Your task to perform on an android device: search for starred emails in the gmail app Image 0: 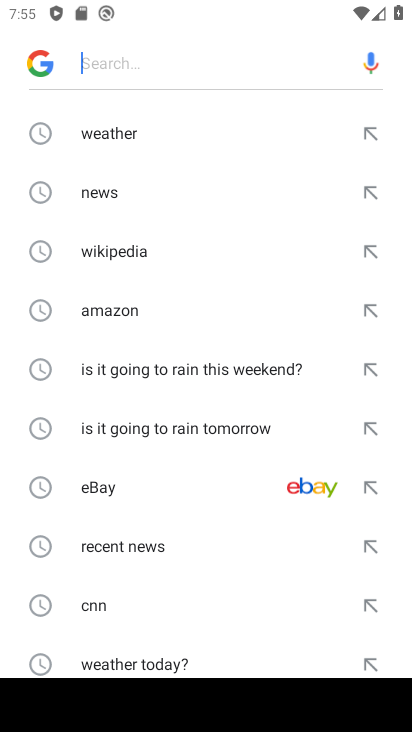
Step 0: press back button
Your task to perform on an android device: search for starred emails in the gmail app Image 1: 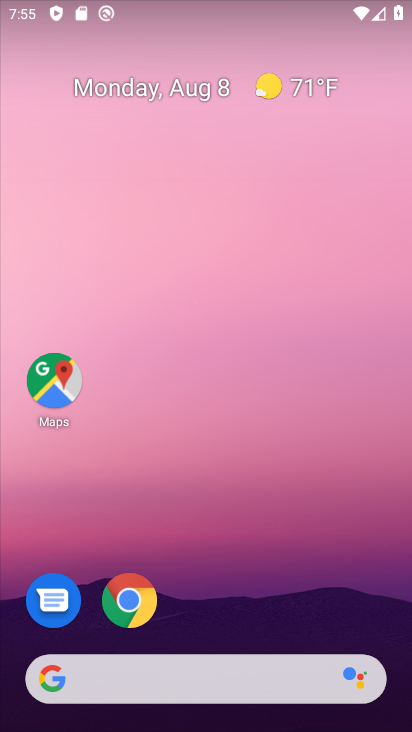
Step 1: drag from (212, 670) to (202, 24)
Your task to perform on an android device: search for starred emails in the gmail app Image 2: 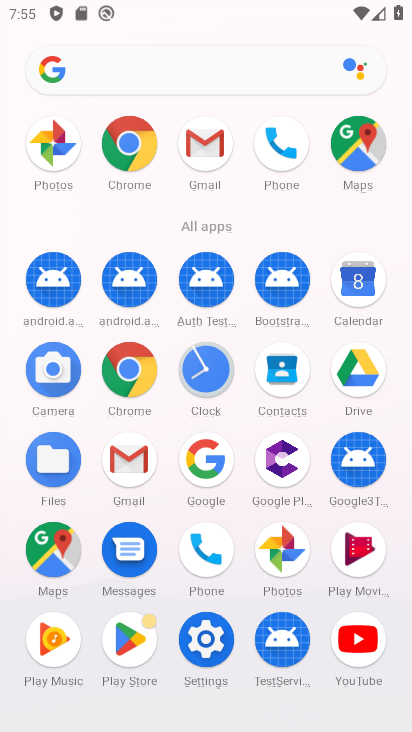
Step 2: click (143, 467)
Your task to perform on an android device: search for starred emails in the gmail app Image 3: 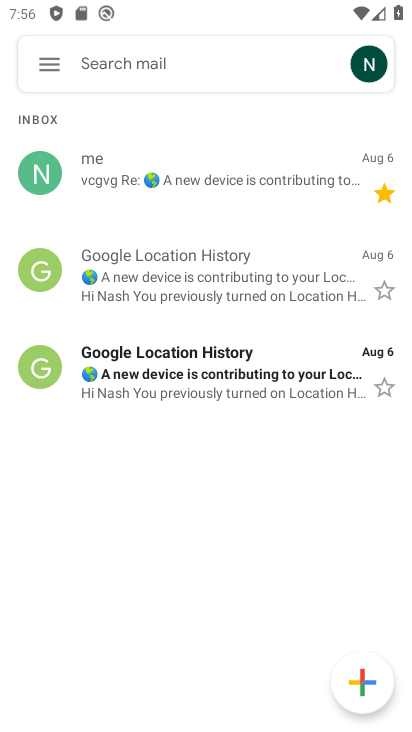
Step 3: click (54, 69)
Your task to perform on an android device: search for starred emails in the gmail app Image 4: 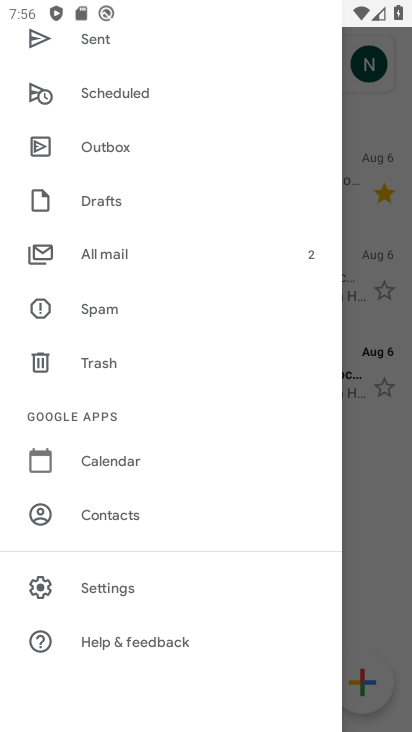
Step 4: drag from (111, 113) to (136, 407)
Your task to perform on an android device: search for starred emails in the gmail app Image 5: 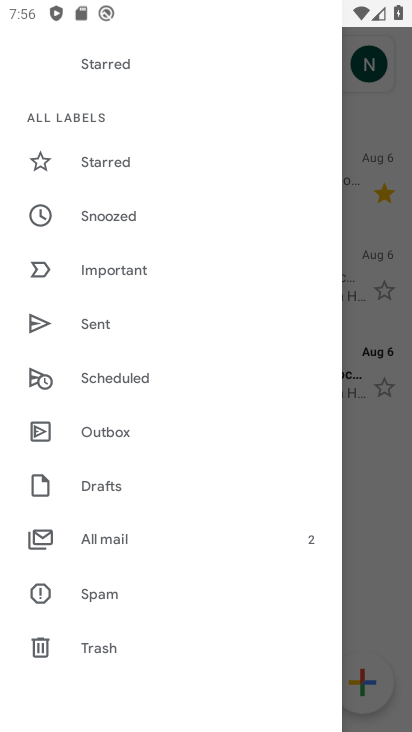
Step 5: drag from (100, 162) to (95, 504)
Your task to perform on an android device: search for starred emails in the gmail app Image 6: 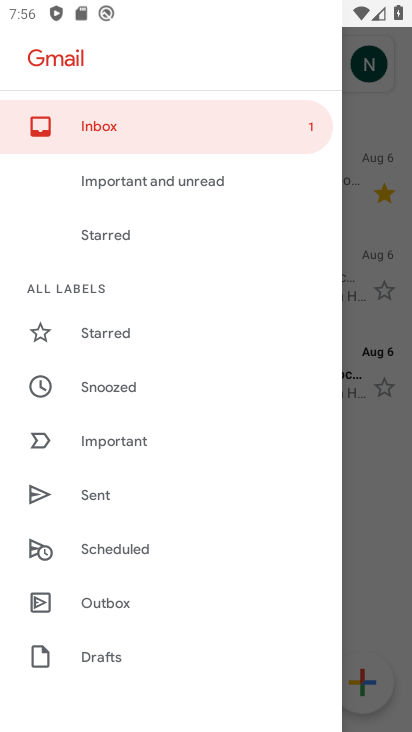
Step 6: click (114, 330)
Your task to perform on an android device: search for starred emails in the gmail app Image 7: 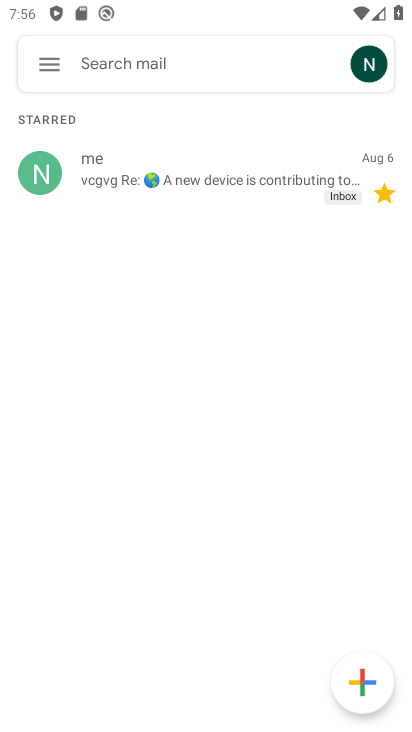
Step 7: task complete